Your task to perform on an android device: toggle notification dots Image 0: 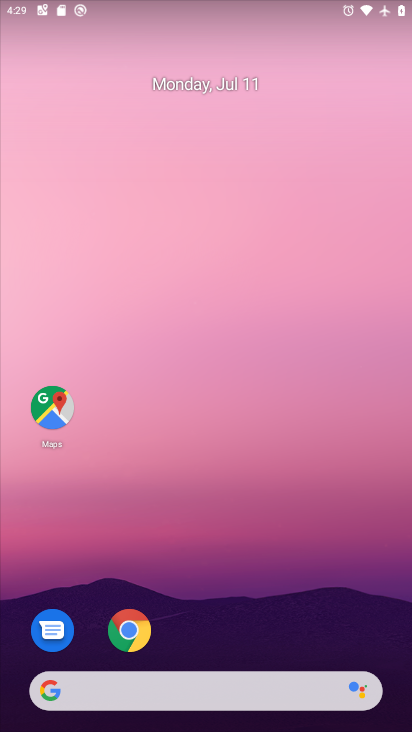
Step 0: drag from (239, 668) to (159, 133)
Your task to perform on an android device: toggle notification dots Image 1: 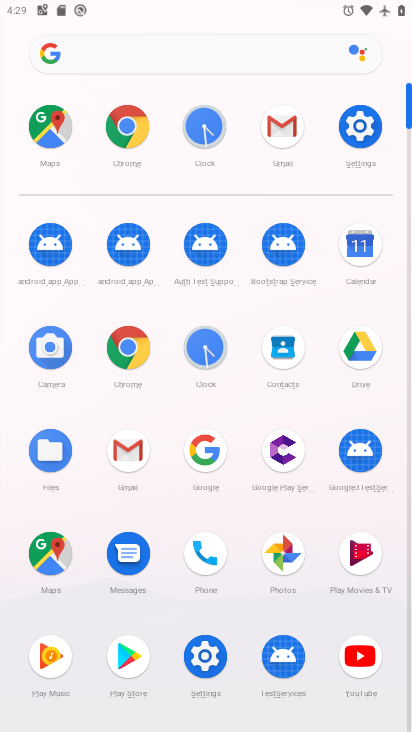
Step 1: click (353, 130)
Your task to perform on an android device: toggle notification dots Image 2: 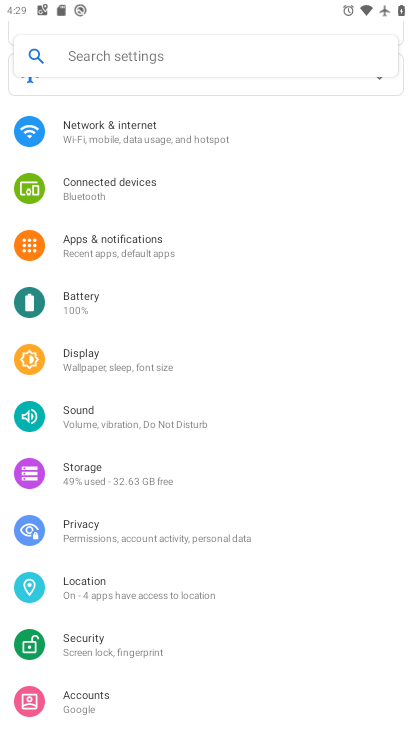
Step 2: click (165, 267)
Your task to perform on an android device: toggle notification dots Image 3: 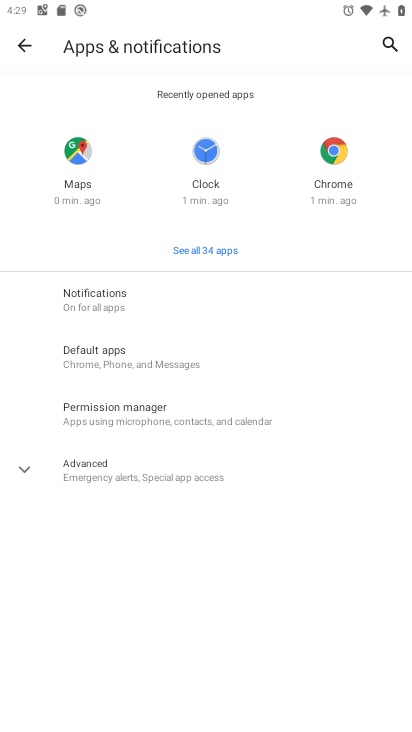
Step 3: click (175, 312)
Your task to perform on an android device: toggle notification dots Image 4: 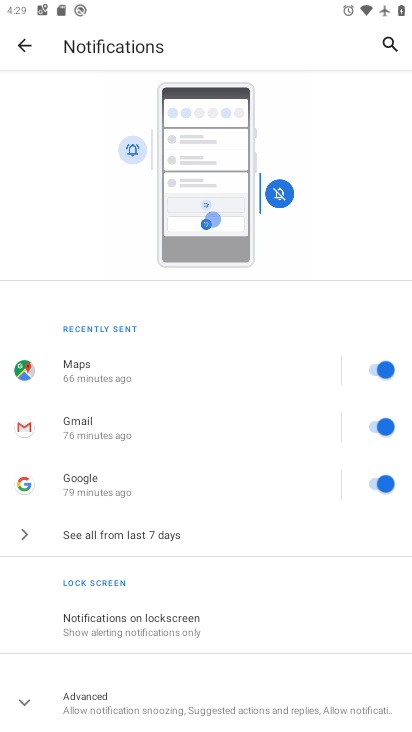
Step 4: click (222, 706)
Your task to perform on an android device: toggle notification dots Image 5: 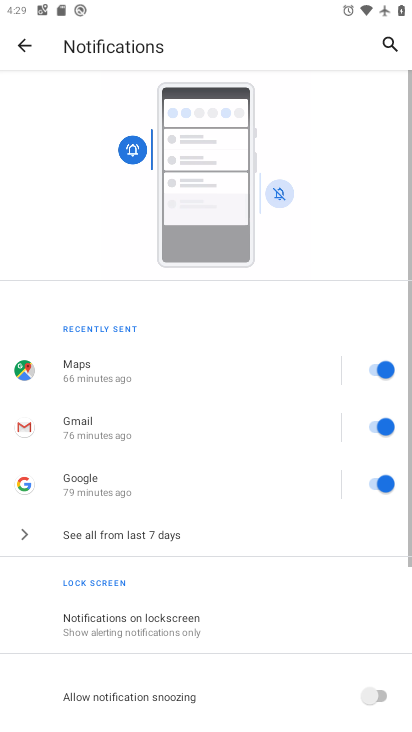
Step 5: drag from (234, 688) to (234, 370)
Your task to perform on an android device: toggle notification dots Image 6: 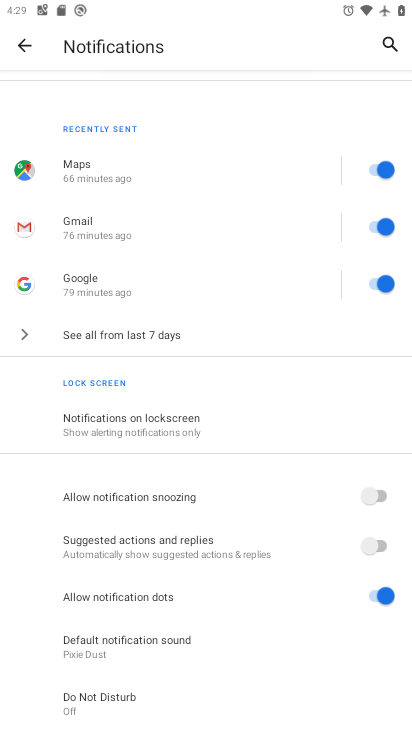
Step 6: click (375, 551)
Your task to perform on an android device: toggle notification dots Image 7: 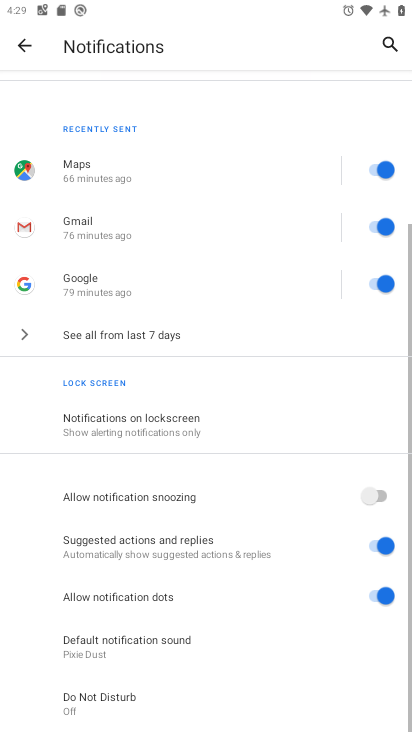
Step 7: click (375, 577)
Your task to perform on an android device: toggle notification dots Image 8: 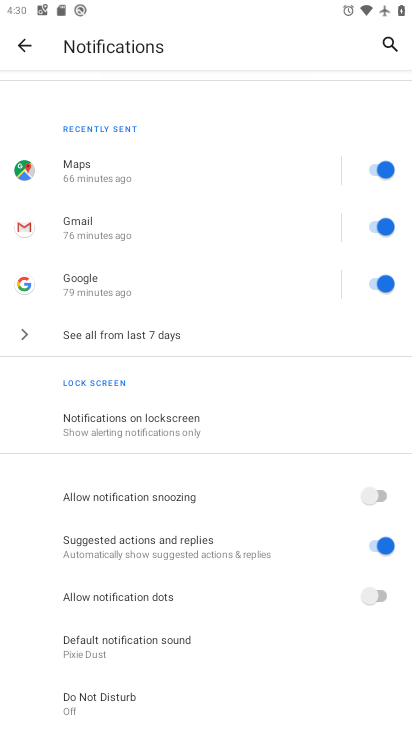
Step 8: task complete